Your task to perform on an android device: turn off priority inbox in the gmail app Image 0: 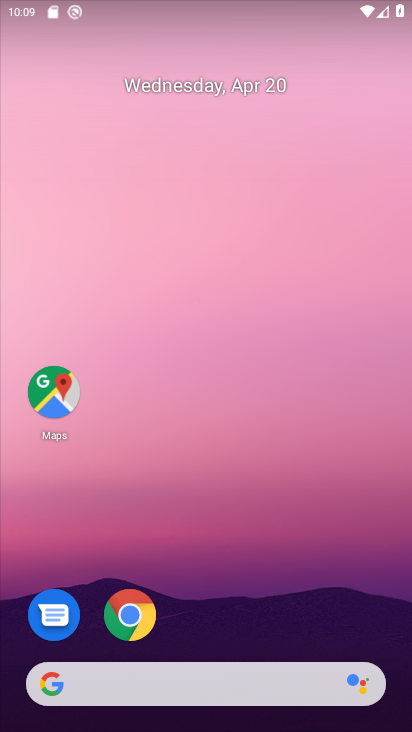
Step 0: drag from (384, 548) to (343, 98)
Your task to perform on an android device: turn off priority inbox in the gmail app Image 1: 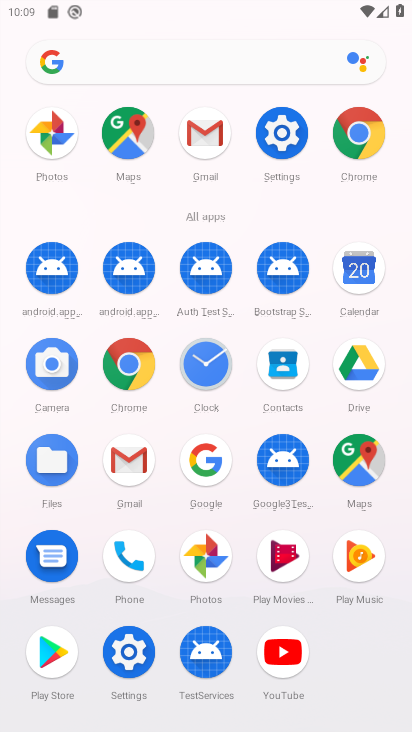
Step 1: click (137, 466)
Your task to perform on an android device: turn off priority inbox in the gmail app Image 2: 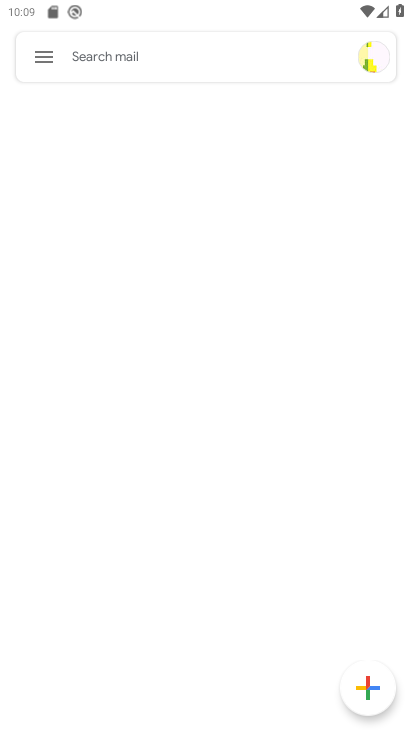
Step 2: click (37, 59)
Your task to perform on an android device: turn off priority inbox in the gmail app Image 3: 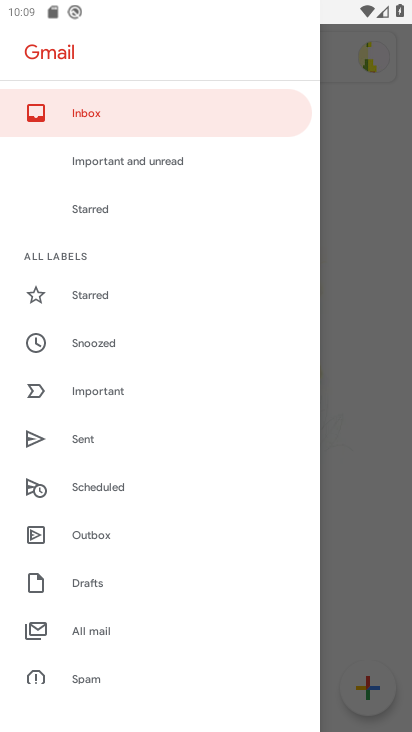
Step 3: drag from (173, 650) to (201, 270)
Your task to perform on an android device: turn off priority inbox in the gmail app Image 4: 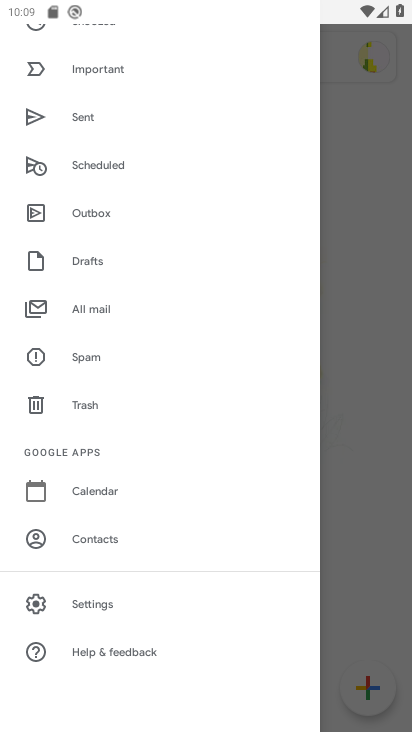
Step 4: click (77, 608)
Your task to perform on an android device: turn off priority inbox in the gmail app Image 5: 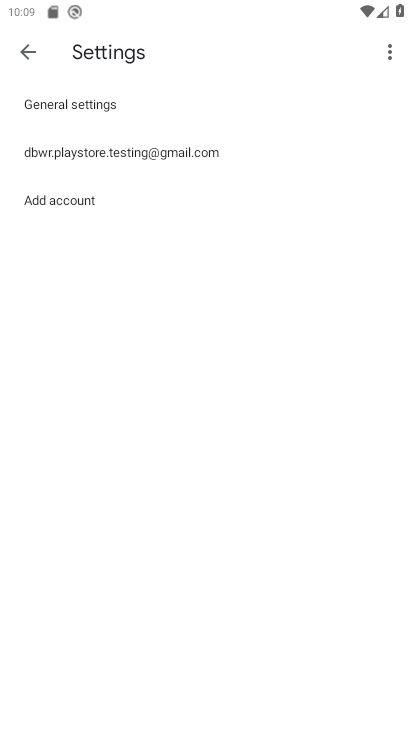
Step 5: click (196, 150)
Your task to perform on an android device: turn off priority inbox in the gmail app Image 6: 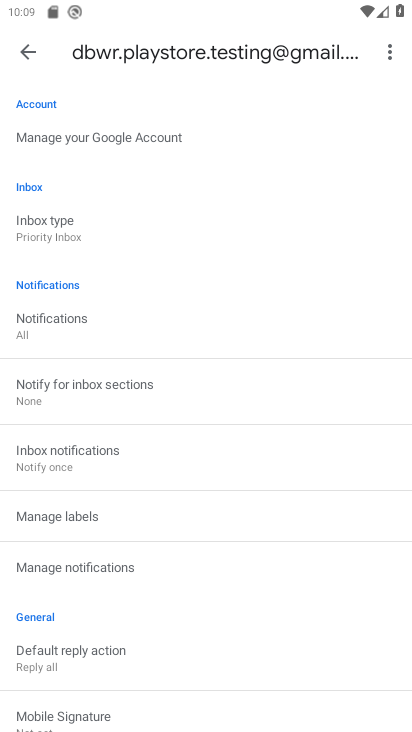
Step 6: click (57, 221)
Your task to perform on an android device: turn off priority inbox in the gmail app Image 7: 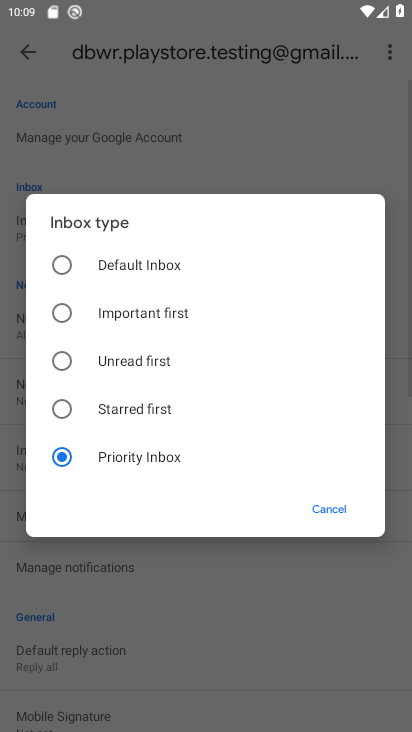
Step 7: click (61, 262)
Your task to perform on an android device: turn off priority inbox in the gmail app Image 8: 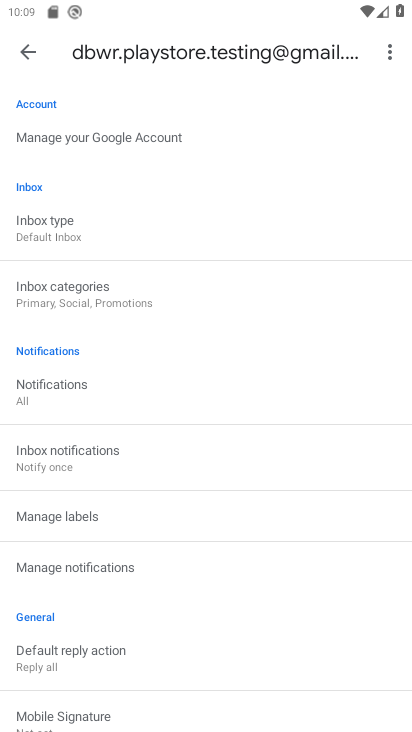
Step 8: task complete